Your task to perform on an android device: toggle improve location accuracy Image 0: 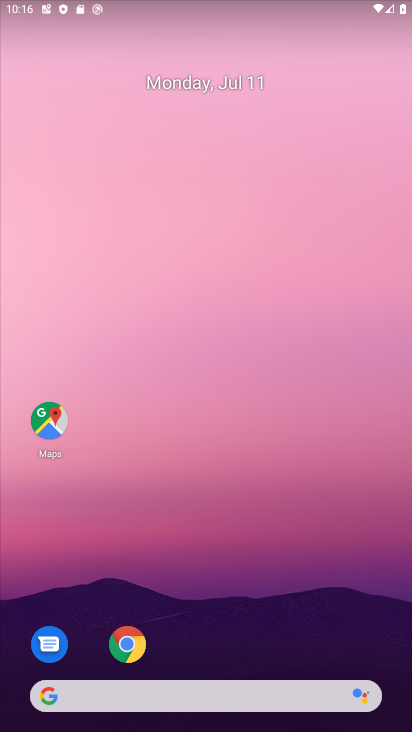
Step 0: drag from (225, 659) to (214, 299)
Your task to perform on an android device: toggle improve location accuracy Image 1: 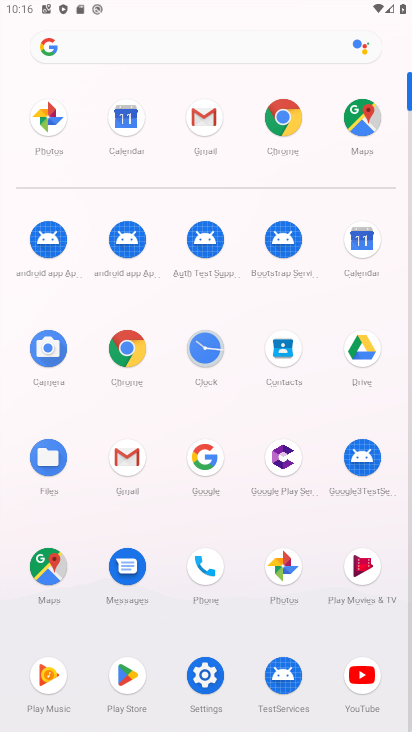
Step 1: click (204, 680)
Your task to perform on an android device: toggle improve location accuracy Image 2: 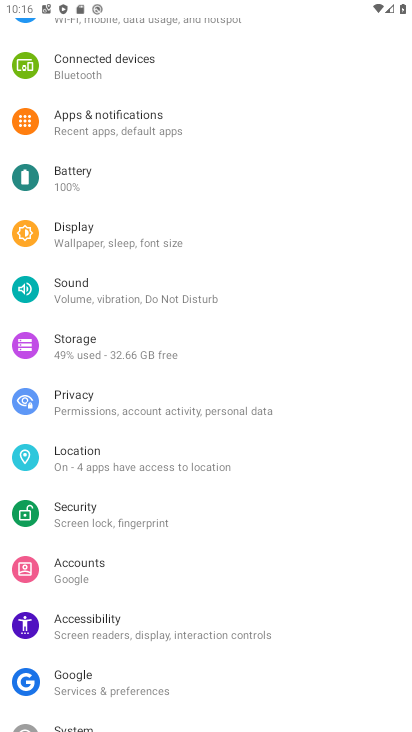
Step 2: click (111, 451)
Your task to perform on an android device: toggle improve location accuracy Image 3: 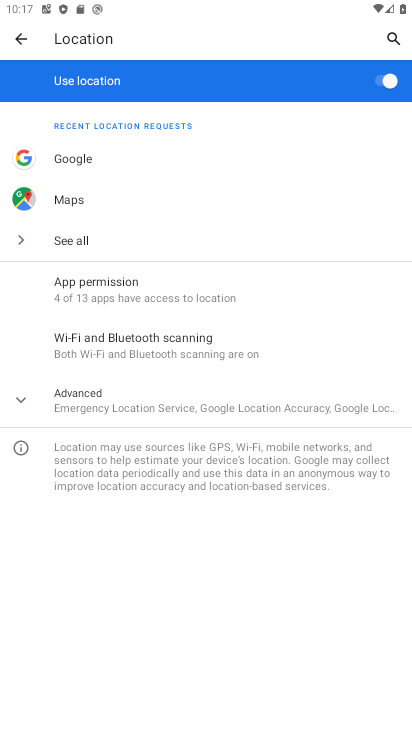
Step 3: click (27, 400)
Your task to perform on an android device: toggle improve location accuracy Image 4: 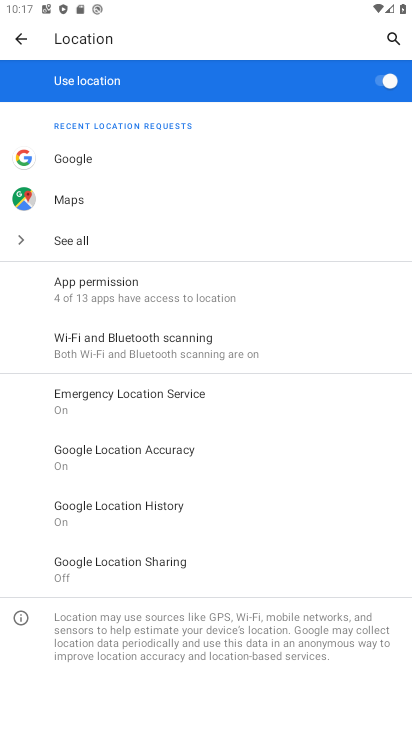
Step 4: click (159, 451)
Your task to perform on an android device: toggle improve location accuracy Image 5: 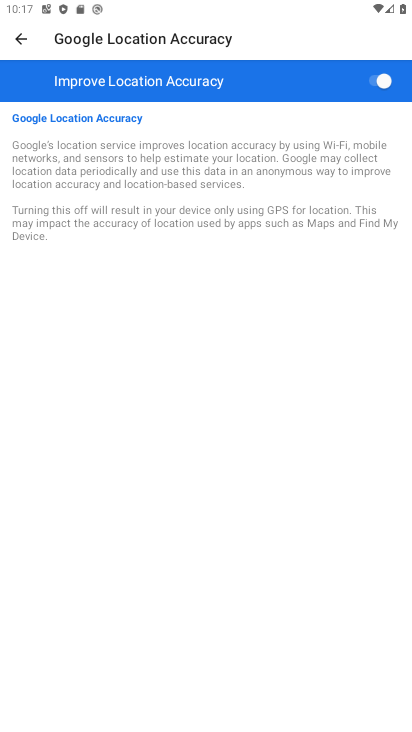
Step 5: task complete